Your task to perform on an android device: allow notifications from all sites in the chrome app Image 0: 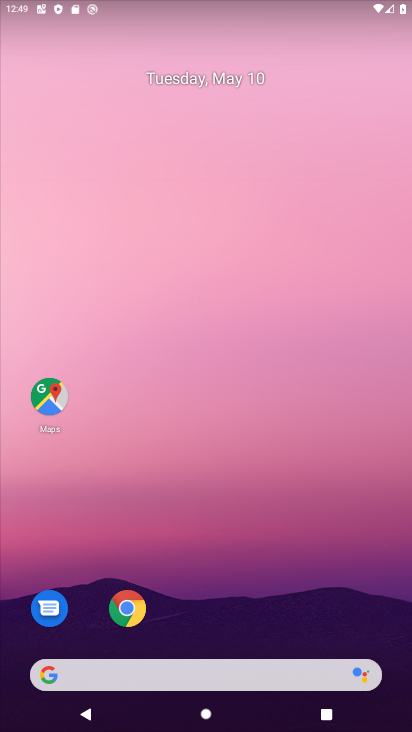
Step 0: press home button
Your task to perform on an android device: allow notifications from all sites in the chrome app Image 1: 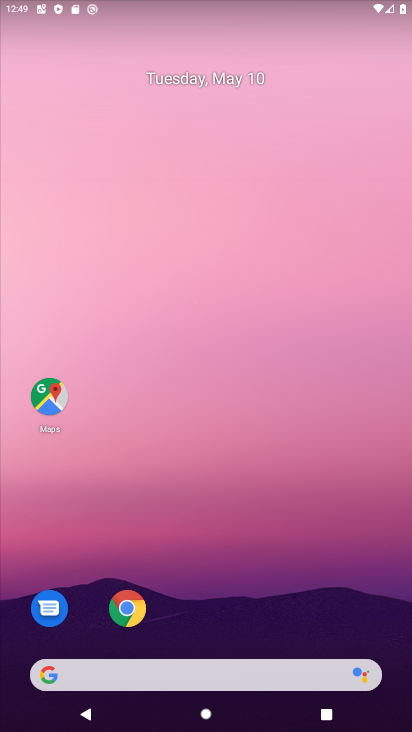
Step 1: drag from (382, 590) to (357, 214)
Your task to perform on an android device: allow notifications from all sites in the chrome app Image 2: 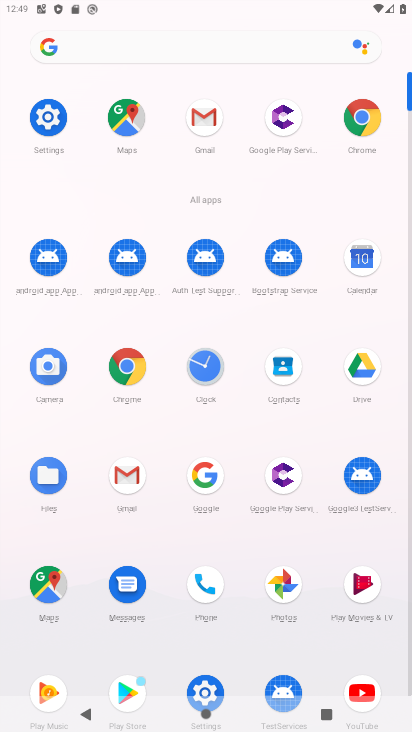
Step 2: click (121, 372)
Your task to perform on an android device: allow notifications from all sites in the chrome app Image 3: 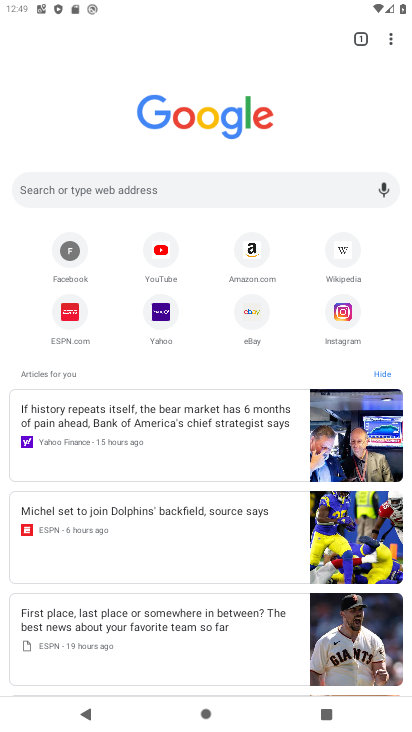
Step 3: drag from (389, 38) to (265, 336)
Your task to perform on an android device: allow notifications from all sites in the chrome app Image 4: 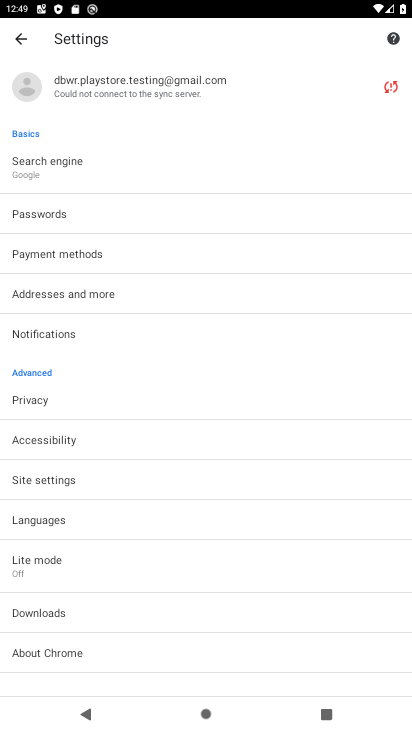
Step 4: click (92, 478)
Your task to perform on an android device: allow notifications from all sites in the chrome app Image 5: 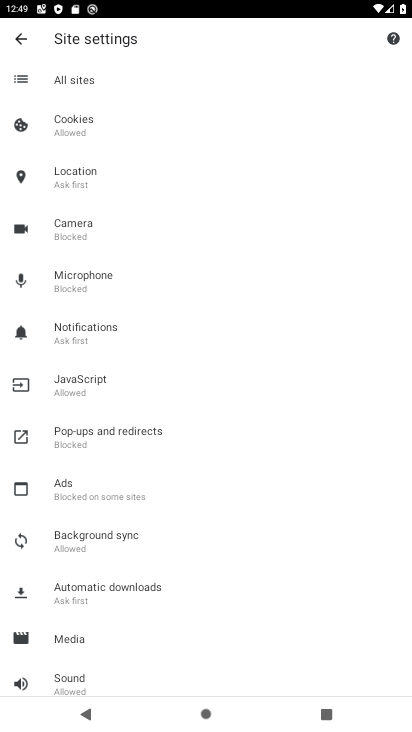
Step 5: click (81, 82)
Your task to perform on an android device: allow notifications from all sites in the chrome app Image 6: 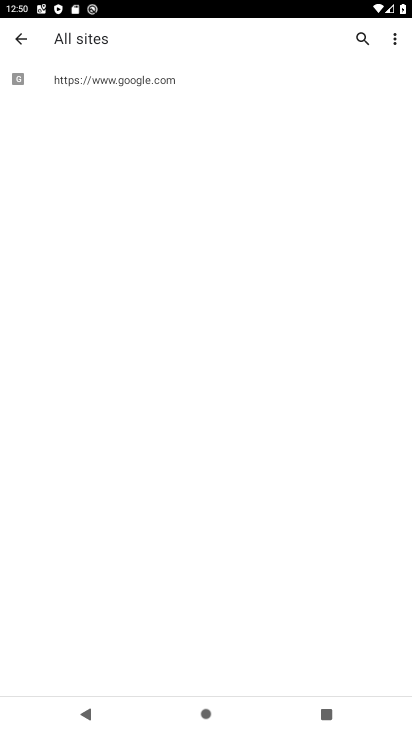
Step 6: click (87, 90)
Your task to perform on an android device: allow notifications from all sites in the chrome app Image 7: 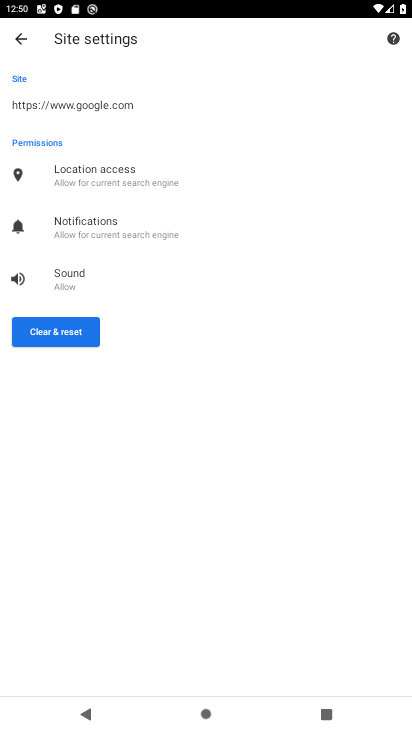
Step 7: task complete